Your task to perform on an android device: Open wifi settings Image 0: 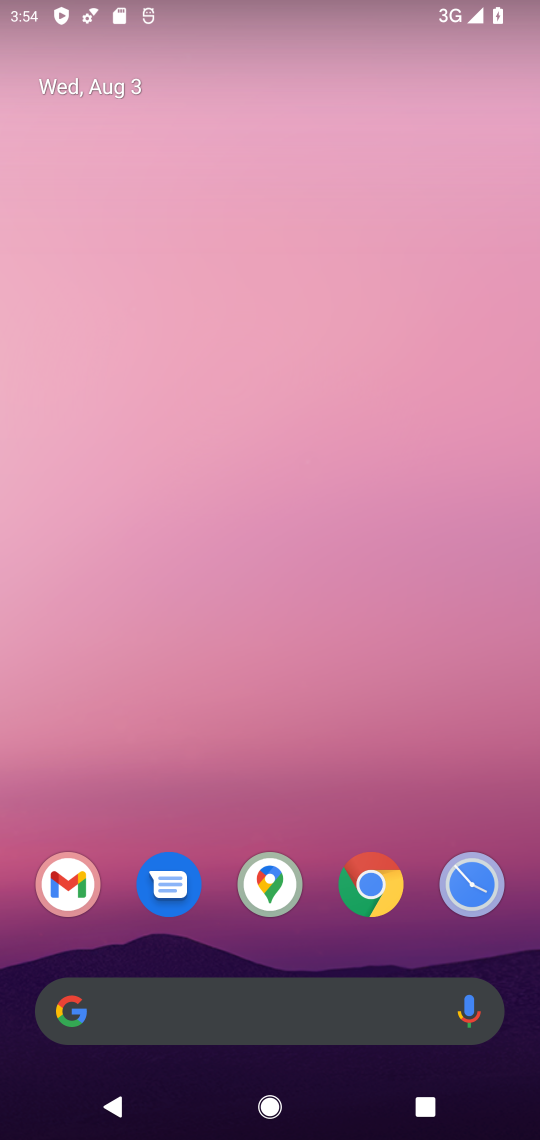
Step 0: drag from (232, 947) to (215, 272)
Your task to perform on an android device: Open wifi settings Image 1: 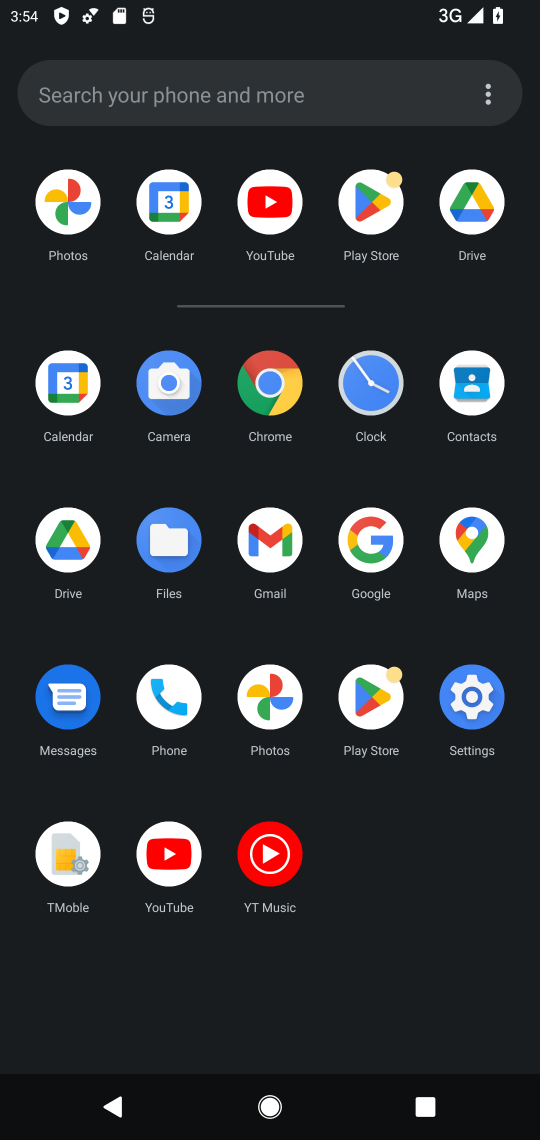
Step 1: click (463, 707)
Your task to perform on an android device: Open wifi settings Image 2: 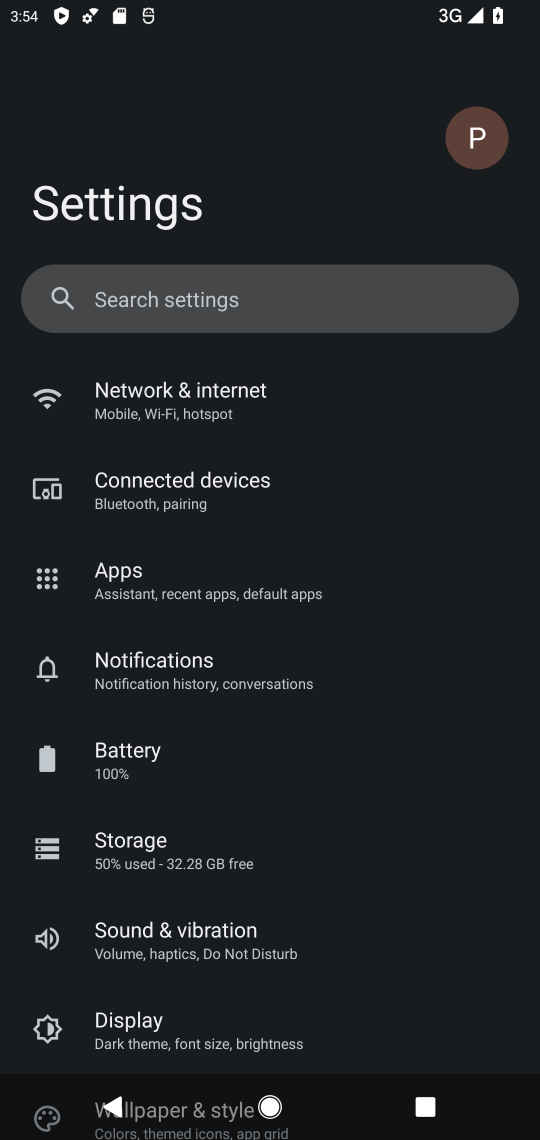
Step 2: task complete